Your task to perform on an android device: open chrome privacy settings Image 0: 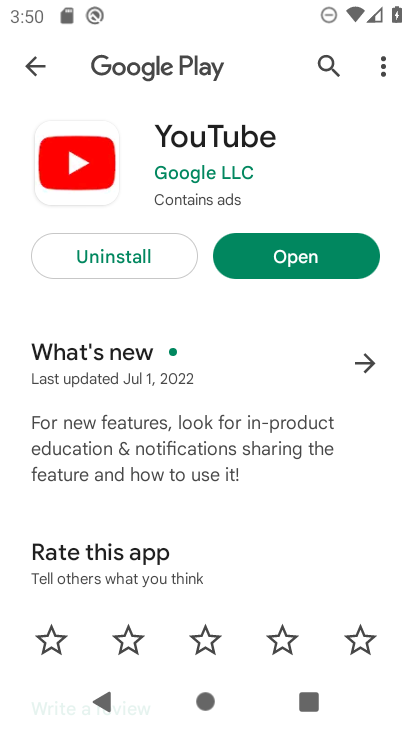
Step 0: press home button
Your task to perform on an android device: open chrome privacy settings Image 1: 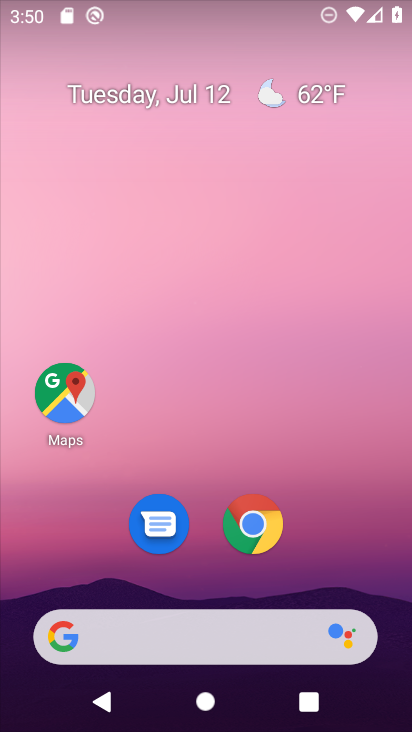
Step 1: click (260, 533)
Your task to perform on an android device: open chrome privacy settings Image 2: 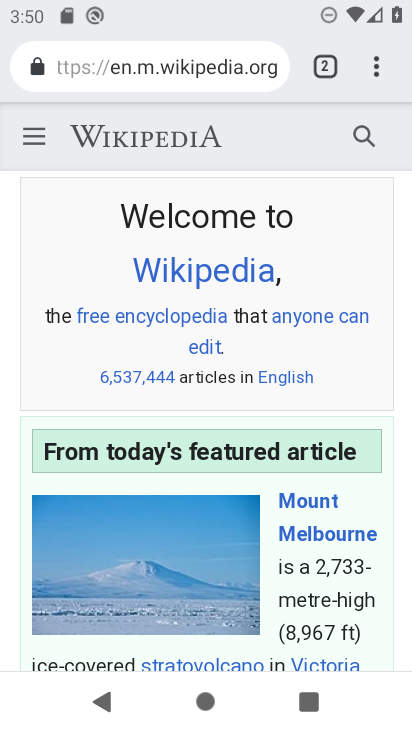
Step 2: click (375, 69)
Your task to perform on an android device: open chrome privacy settings Image 3: 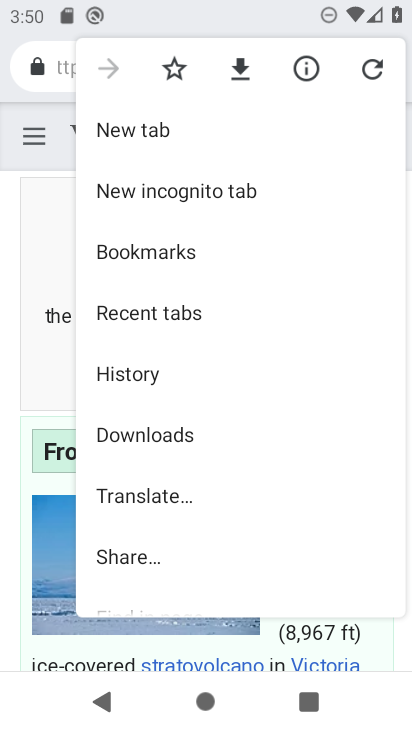
Step 3: drag from (259, 475) to (242, 184)
Your task to perform on an android device: open chrome privacy settings Image 4: 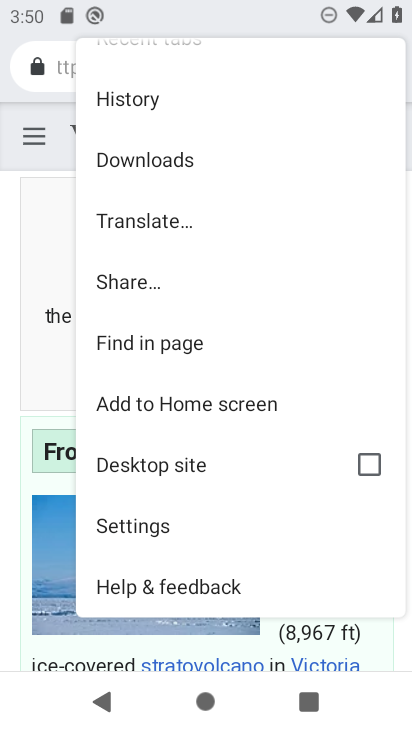
Step 4: click (157, 527)
Your task to perform on an android device: open chrome privacy settings Image 5: 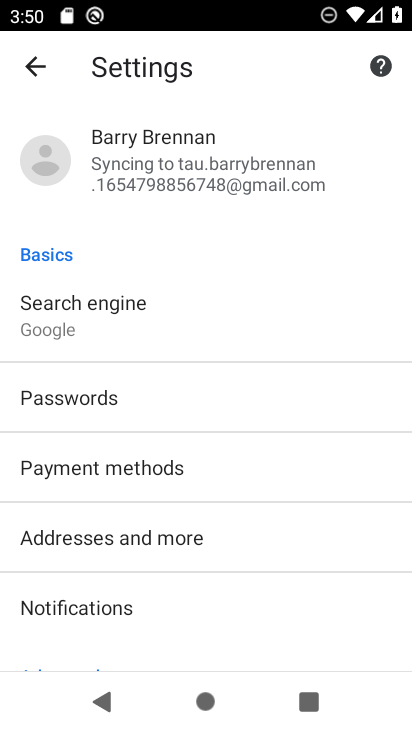
Step 5: drag from (238, 452) to (234, 235)
Your task to perform on an android device: open chrome privacy settings Image 6: 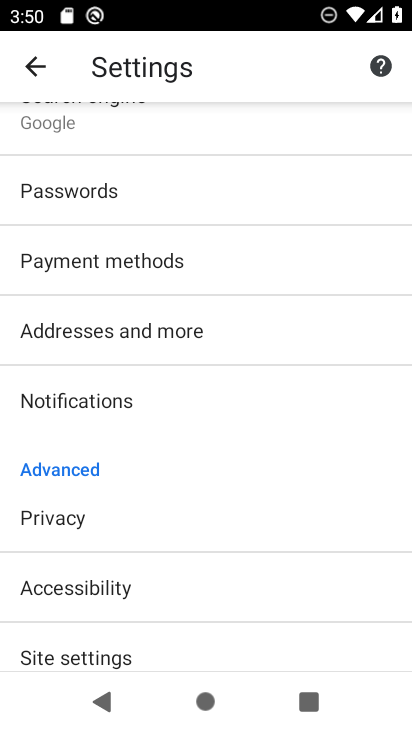
Step 6: click (80, 521)
Your task to perform on an android device: open chrome privacy settings Image 7: 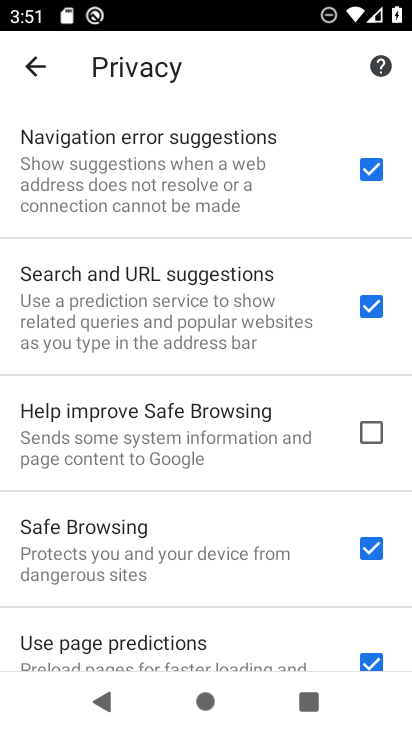
Step 7: task complete